Your task to perform on an android device: Go to Wikipedia Image 0: 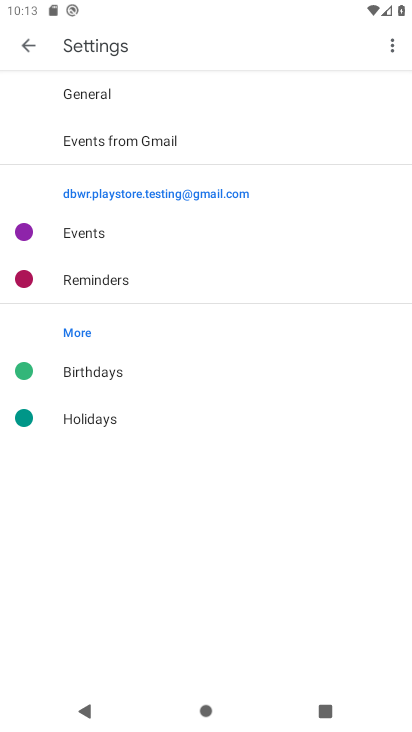
Step 0: press home button
Your task to perform on an android device: Go to Wikipedia Image 1: 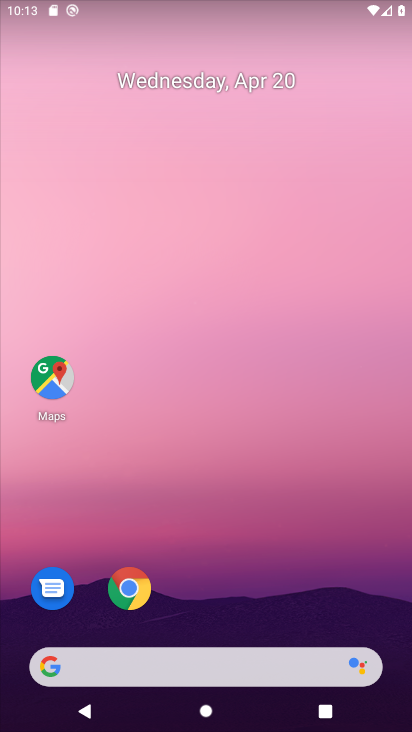
Step 1: click (126, 590)
Your task to perform on an android device: Go to Wikipedia Image 2: 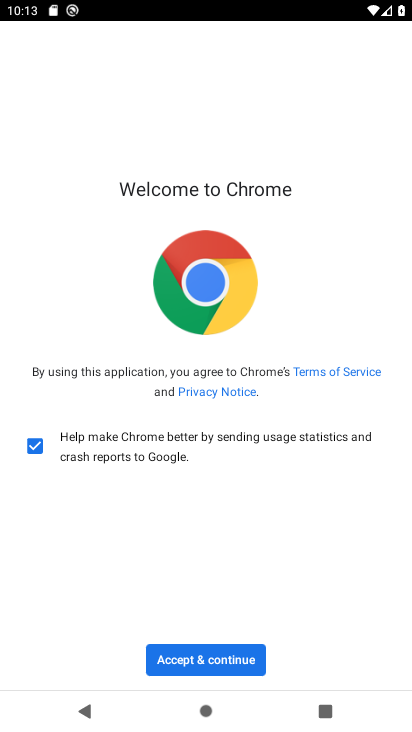
Step 2: click (195, 657)
Your task to perform on an android device: Go to Wikipedia Image 3: 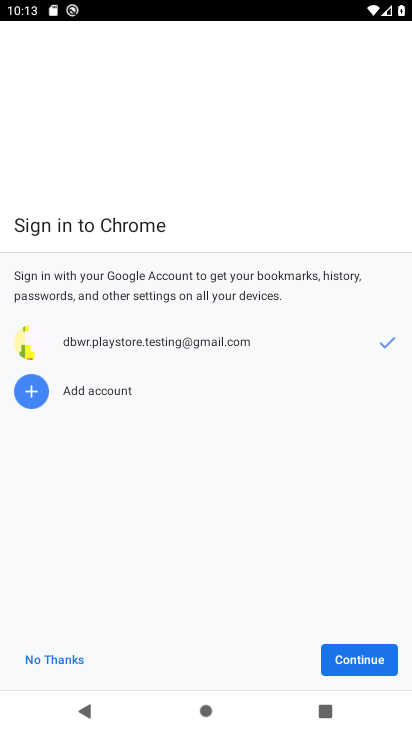
Step 3: click (347, 661)
Your task to perform on an android device: Go to Wikipedia Image 4: 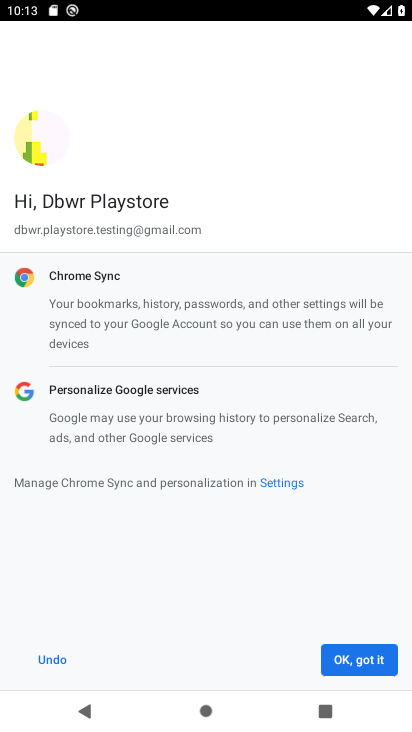
Step 4: click (347, 661)
Your task to perform on an android device: Go to Wikipedia Image 5: 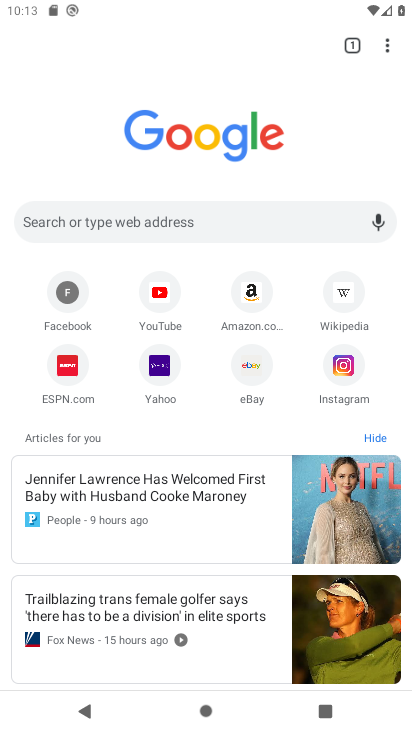
Step 5: click (342, 293)
Your task to perform on an android device: Go to Wikipedia Image 6: 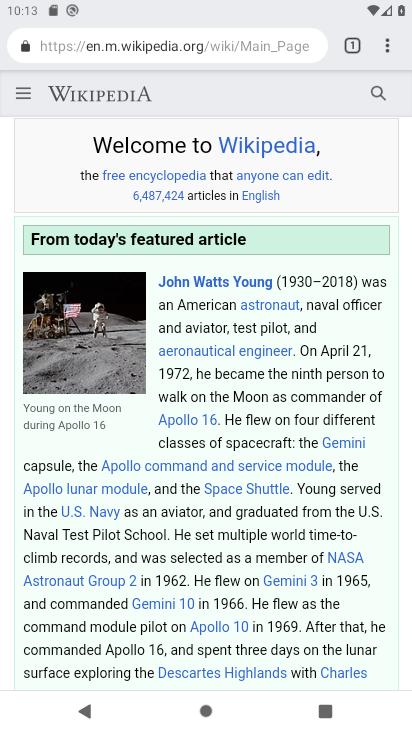
Step 6: task complete